Your task to perform on an android device: turn off notifications in google photos Image 0: 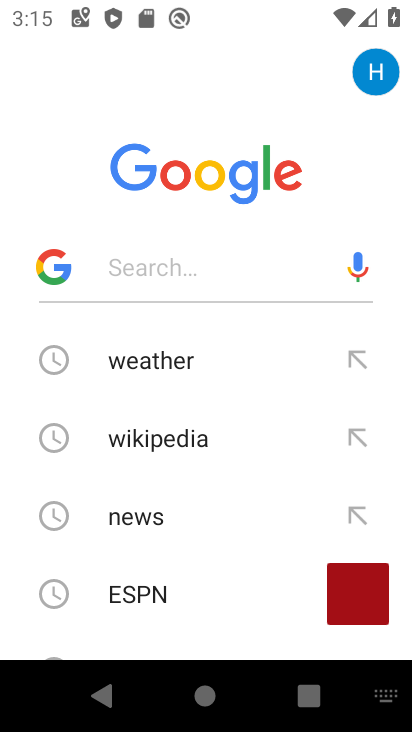
Step 0: press back button
Your task to perform on an android device: turn off notifications in google photos Image 1: 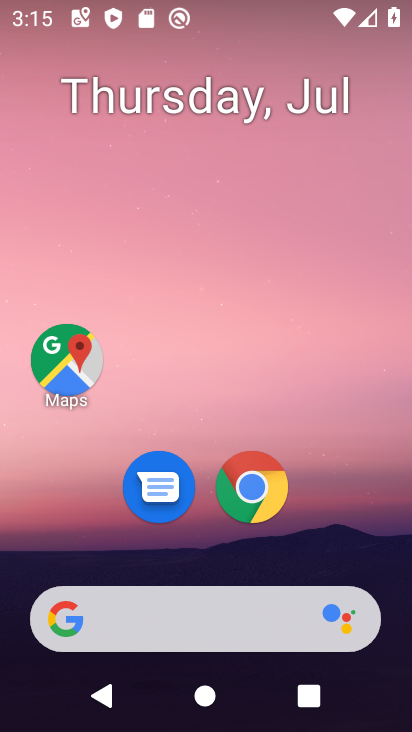
Step 1: click (244, 338)
Your task to perform on an android device: turn off notifications in google photos Image 2: 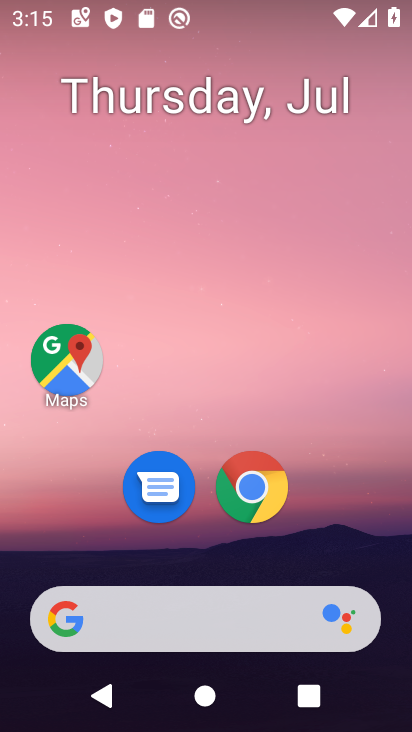
Step 2: click (241, 471)
Your task to perform on an android device: turn off notifications in google photos Image 3: 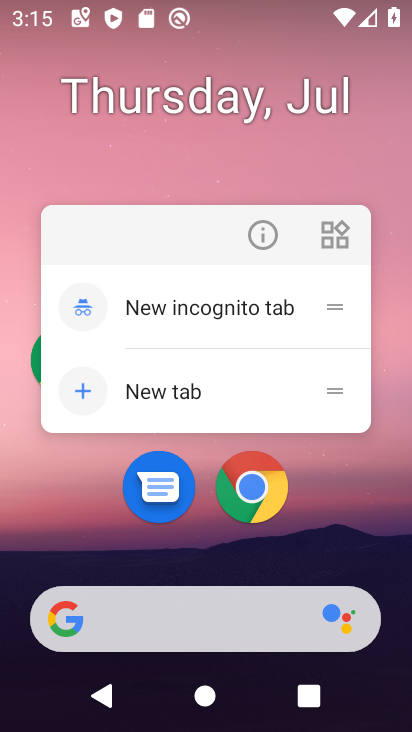
Step 3: click (253, 488)
Your task to perform on an android device: turn off notifications in google photos Image 4: 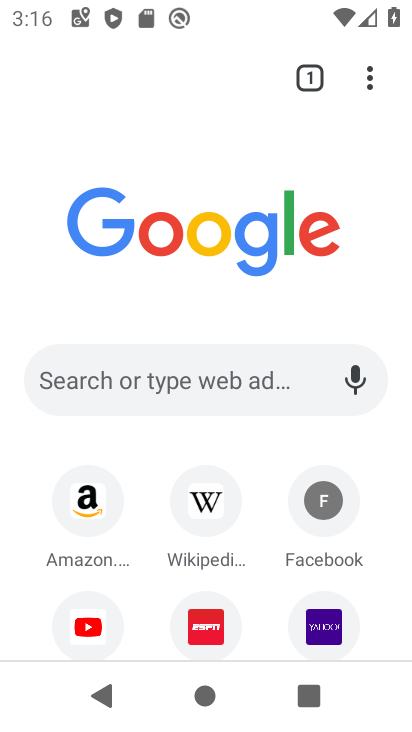
Step 4: press back button
Your task to perform on an android device: turn off notifications in google photos Image 5: 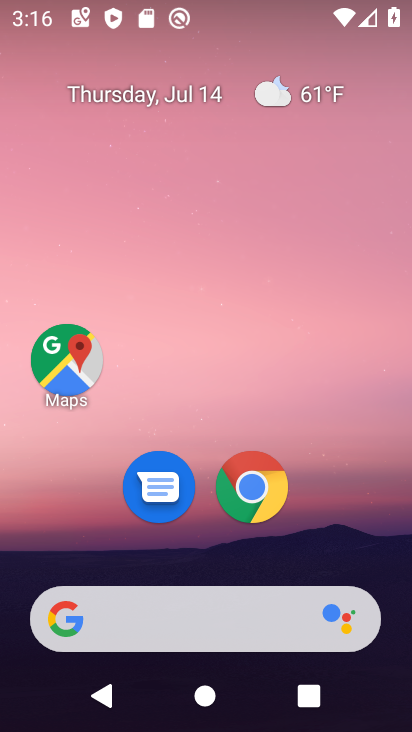
Step 5: drag from (163, 548) to (271, 64)
Your task to perform on an android device: turn off notifications in google photos Image 6: 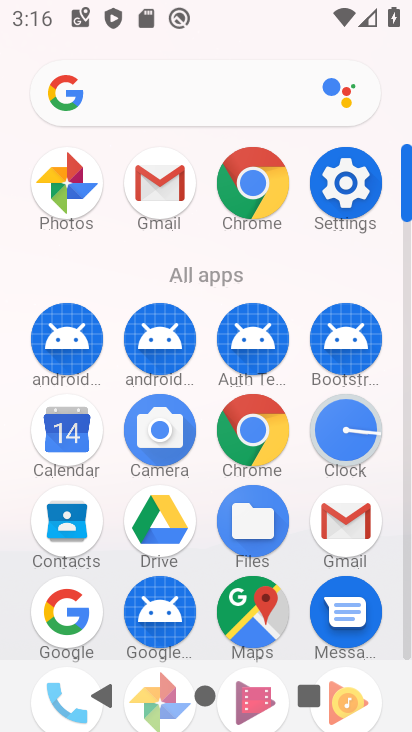
Step 6: drag from (226, 552) to (235, 263)
Your task to perform on an android device: turn off notifications in google photos Image 7: 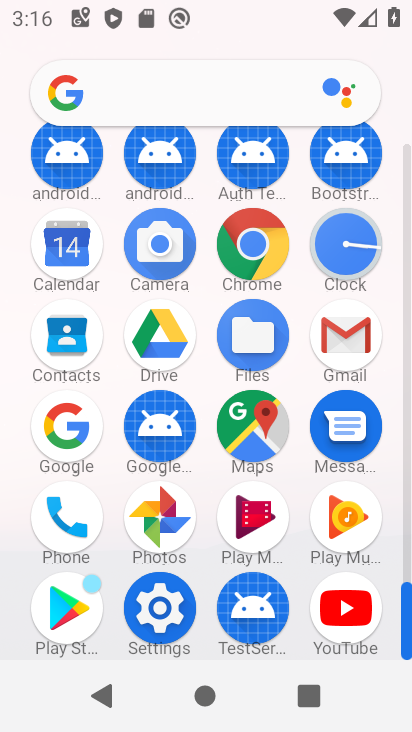
Step 7: click (162, 507)
Your task to perform on an android device: turn off notifications in google photos Image 8: 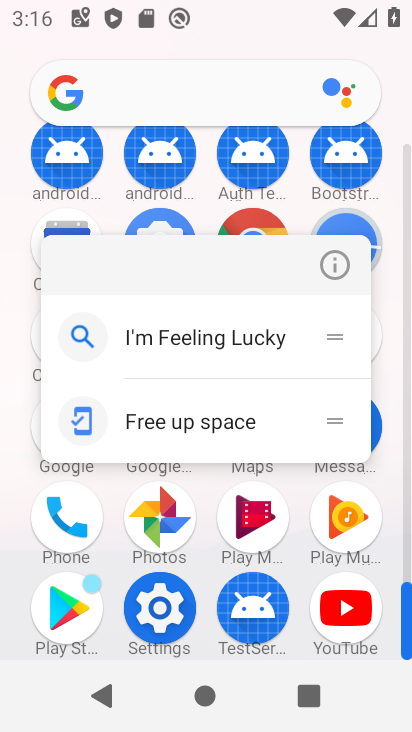
Step 8: click (328, 278)
Your task to perform on an android device: turn off notifications in google photos Image 9: 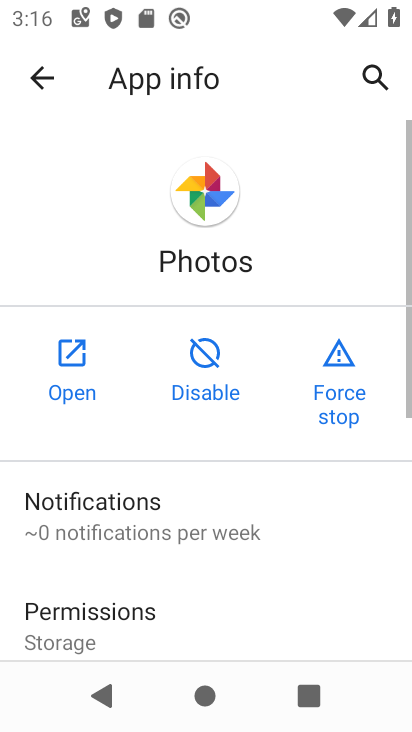
Step 9: click (173, 501)
Your task to perform on an android device: turn off notifications in google photos Image 10: 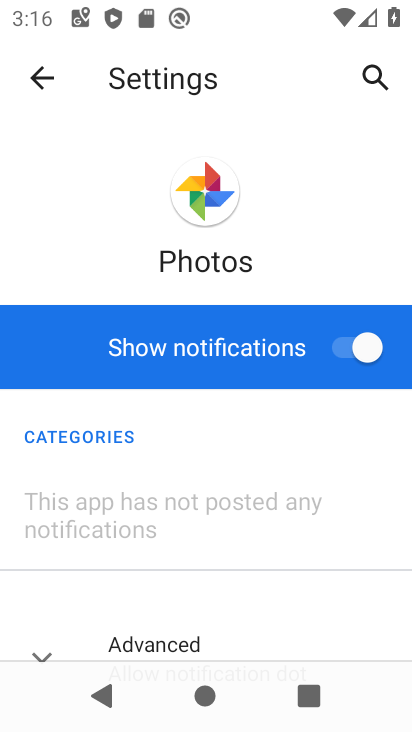
Step 10: click (354, 352)
Your task to perform on an android device: turn off notifications in google photos Image 11: 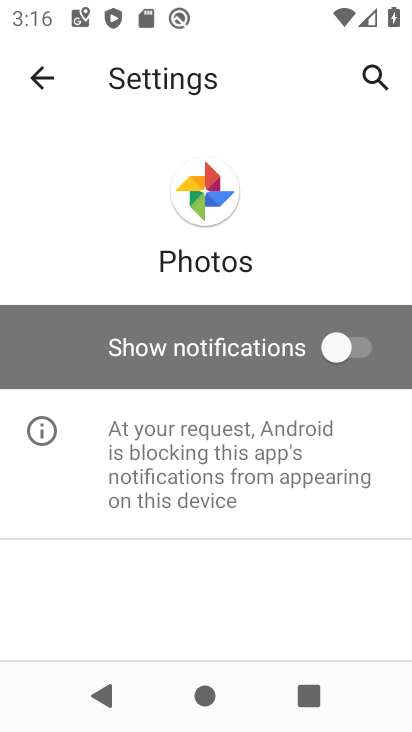
Step 11: task complete